Your task to perform on an android device: Open calendar and show me the third week of next month Image 0: 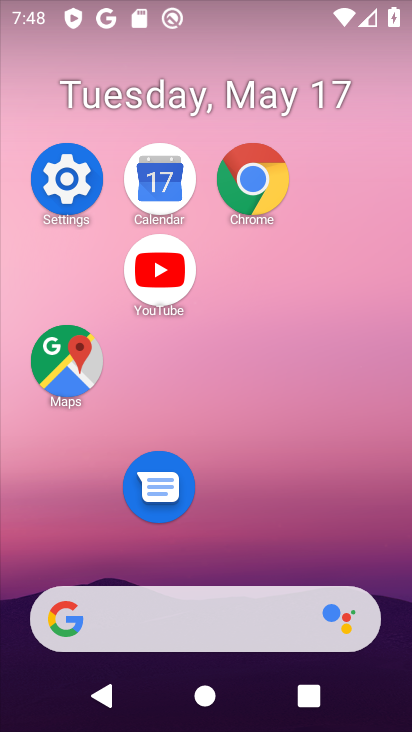
Step 0: click (153, 159)
Your task to perform on an android device: Open calendar and show me the third week of next month Image 1: 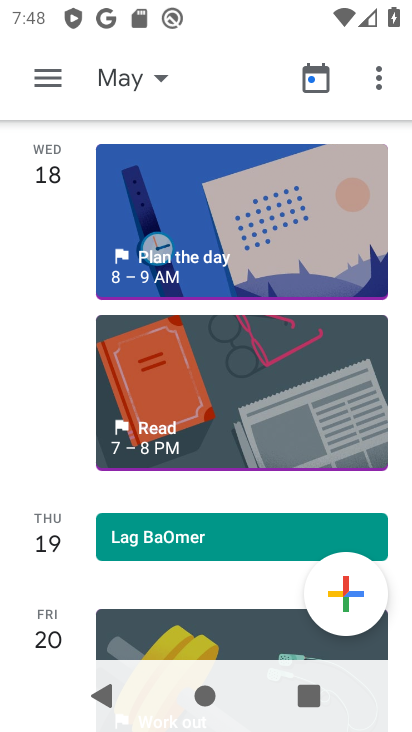
Step 1: click (150, 65)
Your task to perform on an android device: Open calendar and show me the third week of next month Image 2: 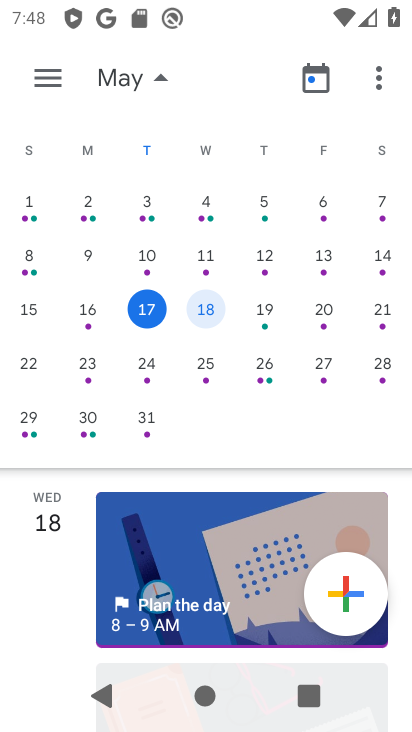
Step 2: drag from (408, 292) to (6, 287)
Your task to perform on an android device: Open calendar and show me the third week of next month Image 3: 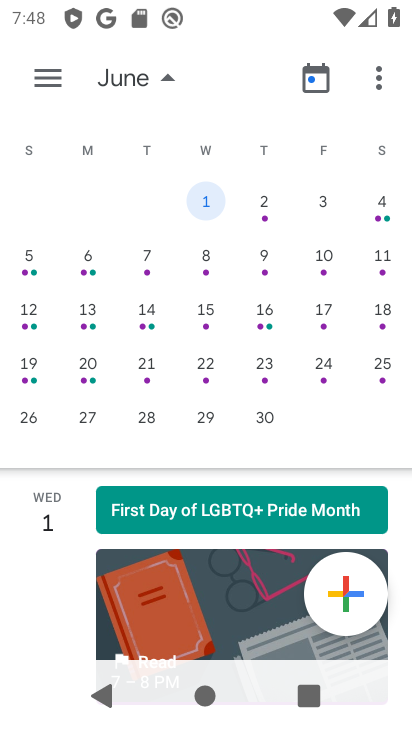
Step 3: click (38, 93)
Your task to perform on an android device: Open calendar and show me the third week of next month Image 4: 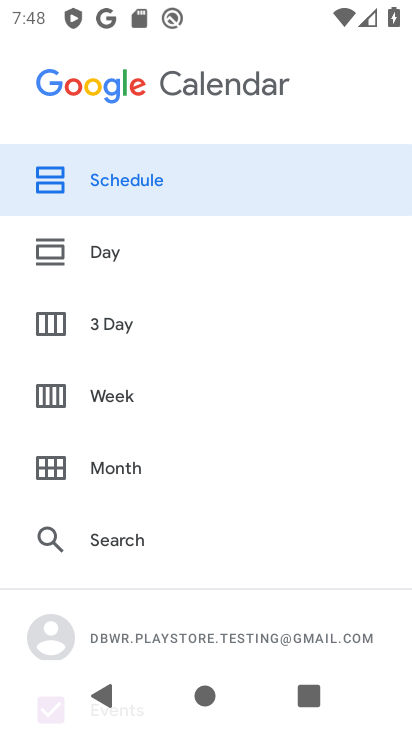
Step 4: click (139, 388)
Your task to perform on an android device: Open calendar and show me the third week of next month Image 5: 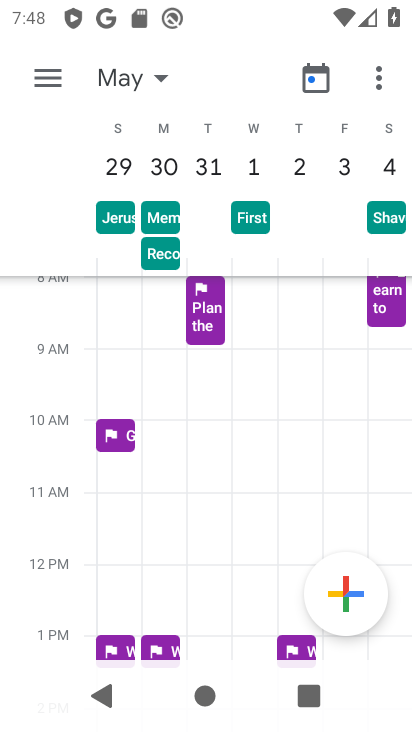
Step 5: task complete